Your task to perform on an android device: open app "Facebook Messenger" Image 0: 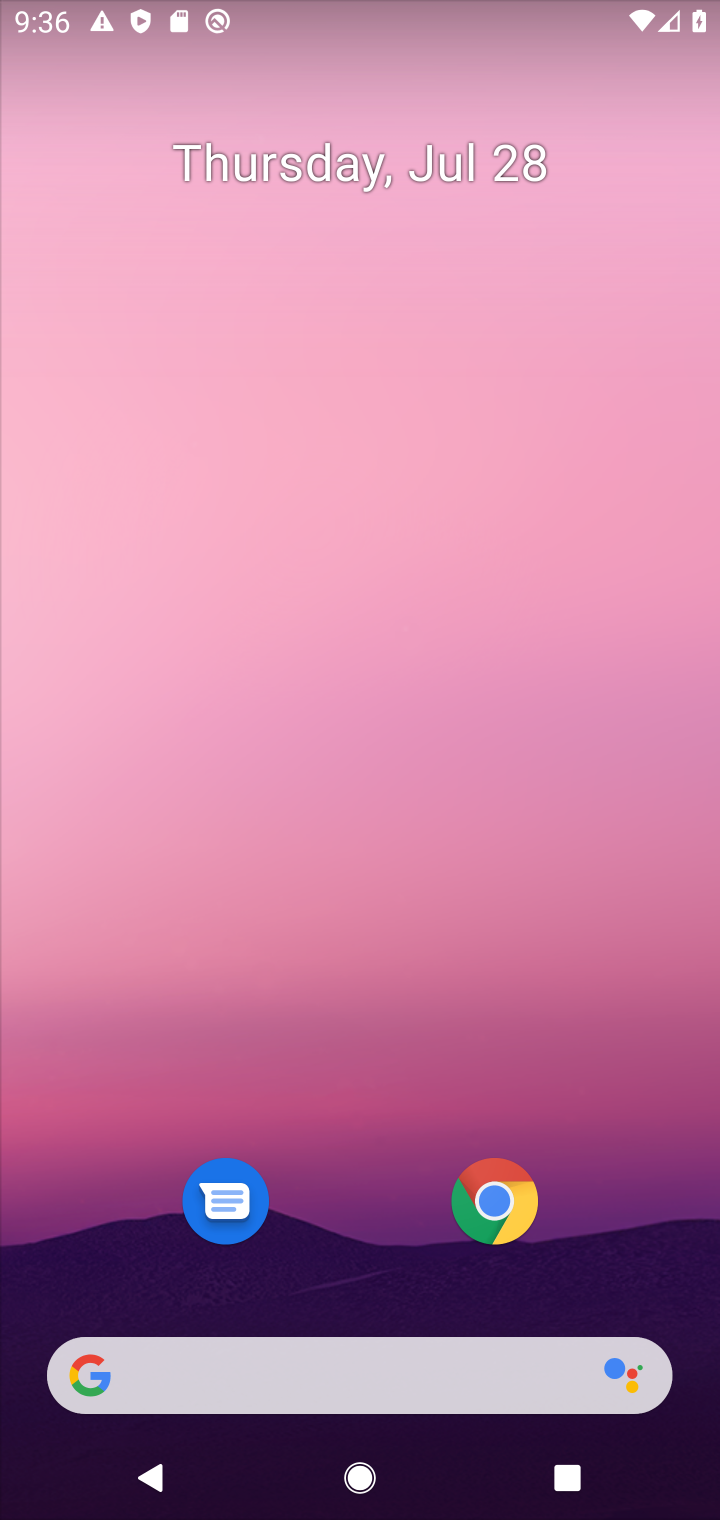
Step 0: drag from (333, 1214) to (248, 69)
Your task to perform on an android device: open app "Facebook Messenger" Image 1: 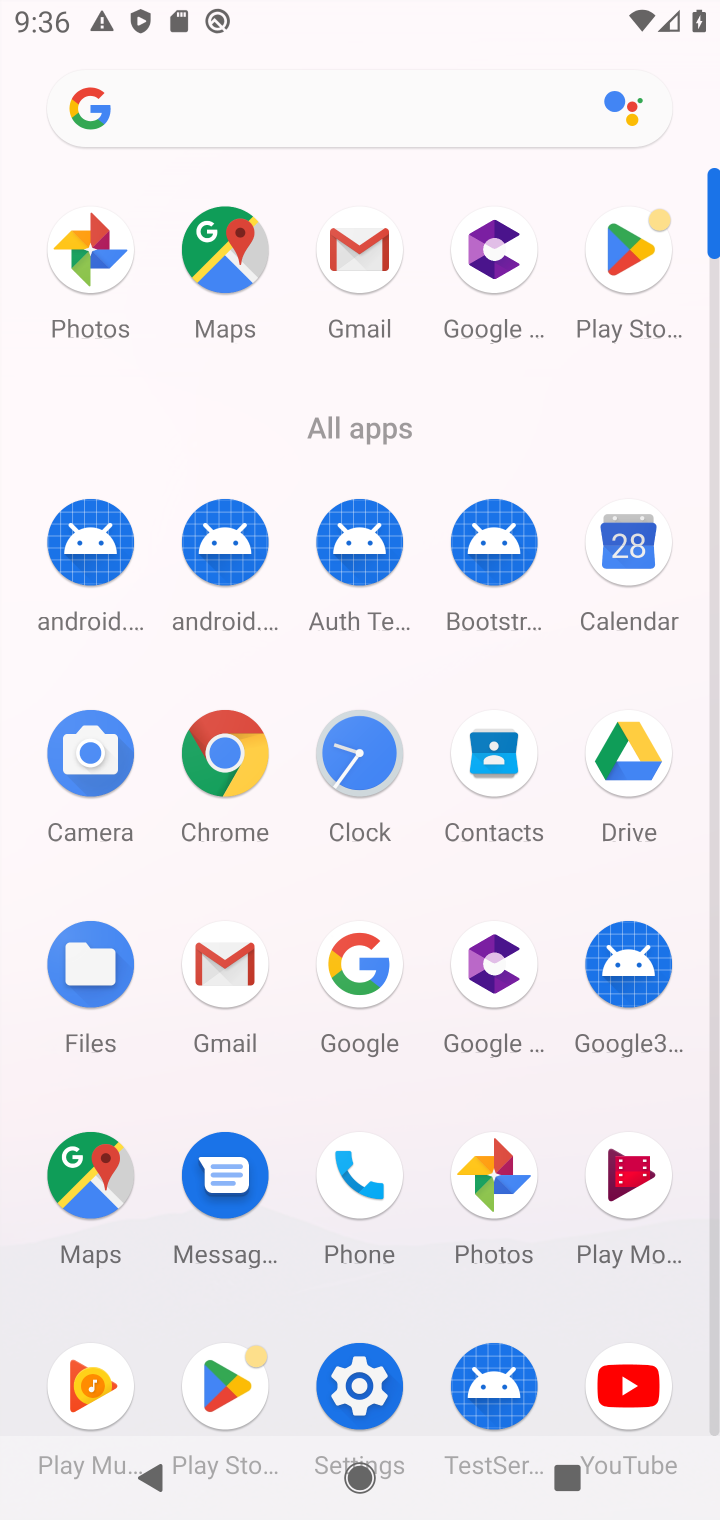
Step 1: click (623, 295)
Your task to perform on an android device: open app "Facebook Messenger" Image 2: 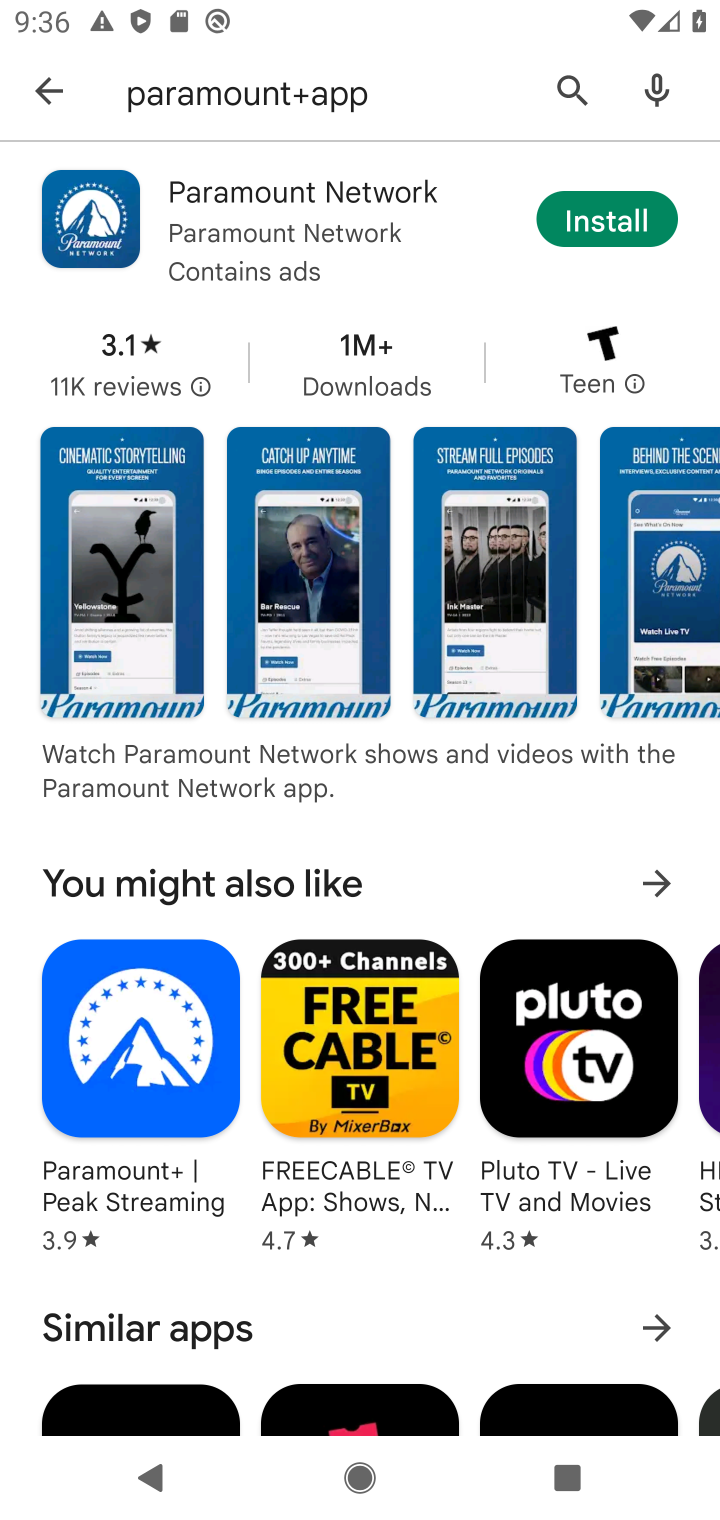
Step 2: click (240, 93)
Your task to perform on an android device: open app "Facebook Messenger" Image 3: 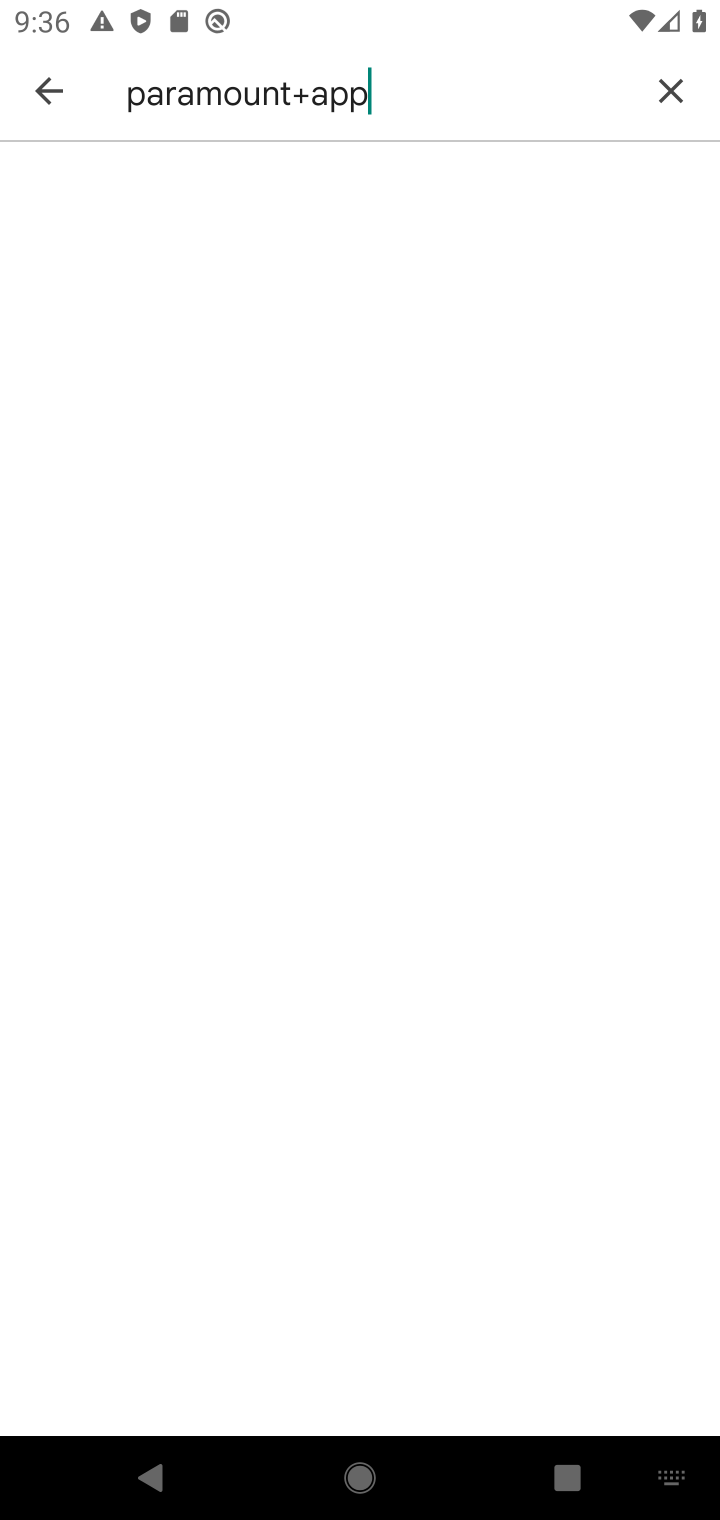
Step 3: click (667, 101)
Your task to perform on an android device: open app "Facebook Messenger" Image 4: 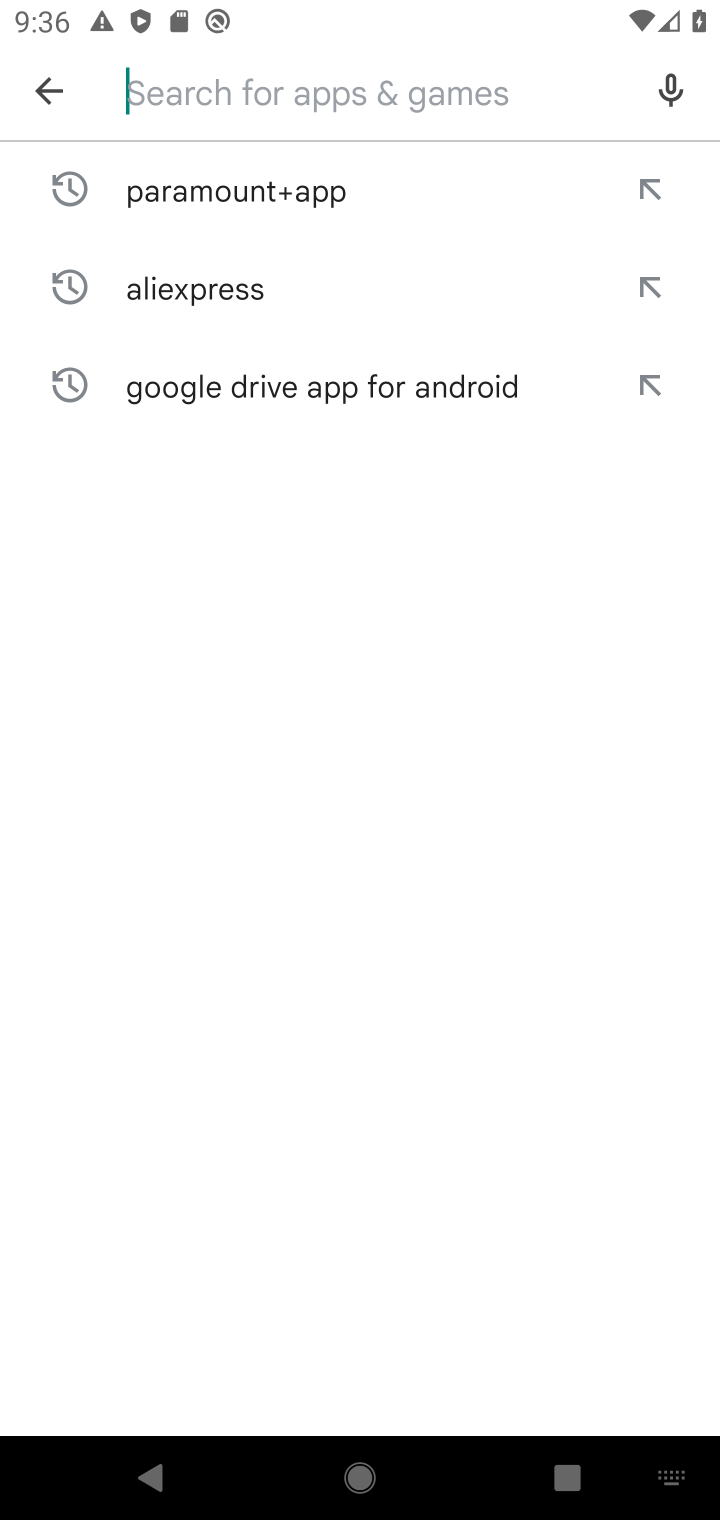
Step 4: type "Facebook Messenger"
Your task to perform on an android device: open app "Facebook Messenger" Image 5: 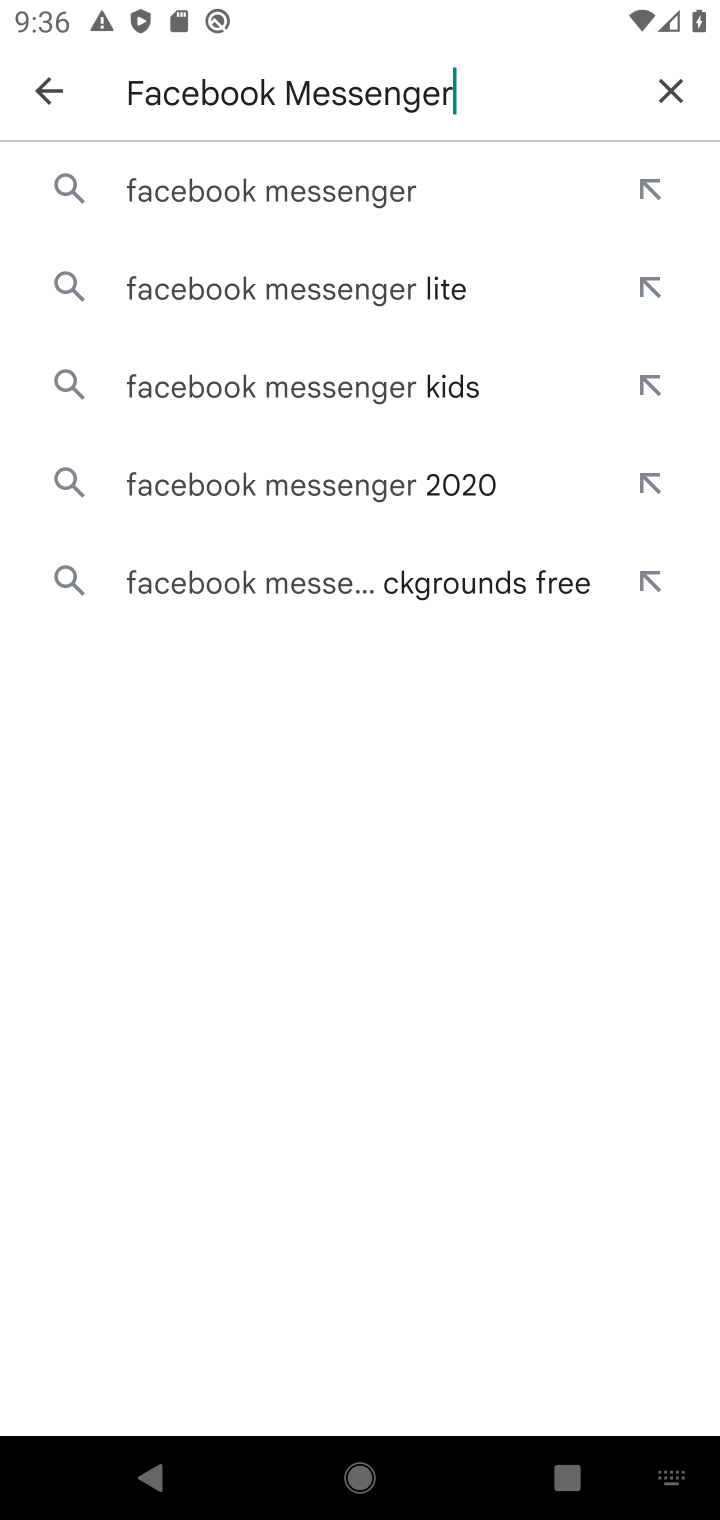
Step 5: click (314, 218)
Your task to perform on an android device: open app "Facebook Messenger" Image 6: 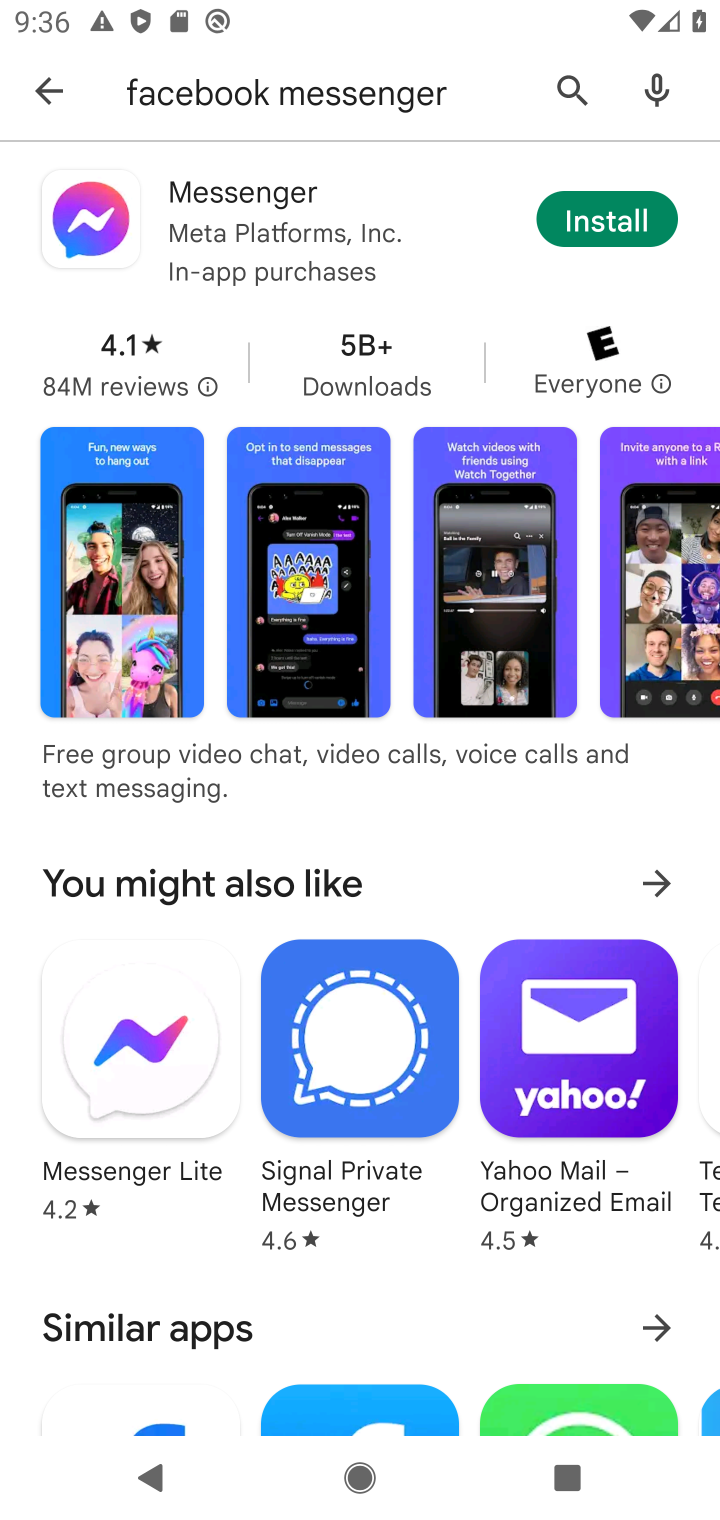
Step 6: task complete